Your task to perform on an android device: change alarm snooze length Image 0: 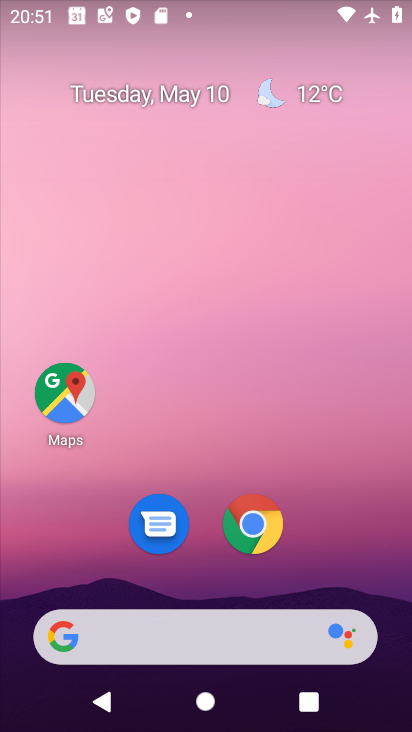
Step 0: drag from (330, 520) to (279, 29)
Your task to perform on an android device: change alarm snooze length Image 1: 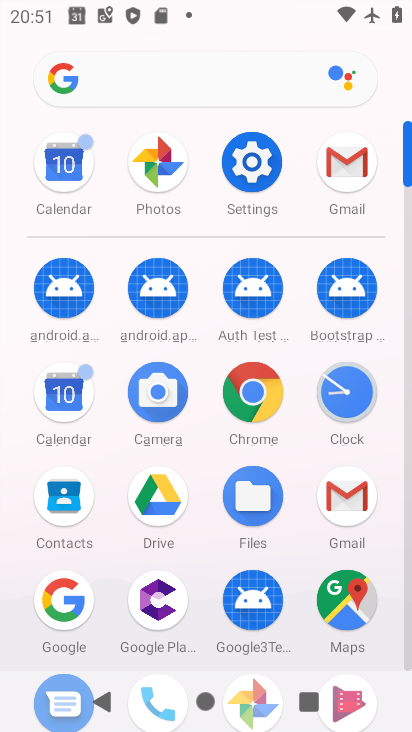
Step 1: click (349, 395)
Your task to perform on an android device: change alarm snooze length Image 2: 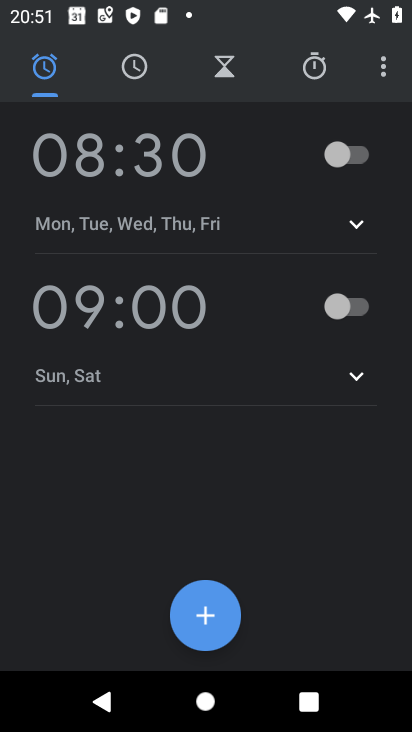
Step 2: click (383, 79)
Your task to perform on an android device: change alarm snooze length Image 3: 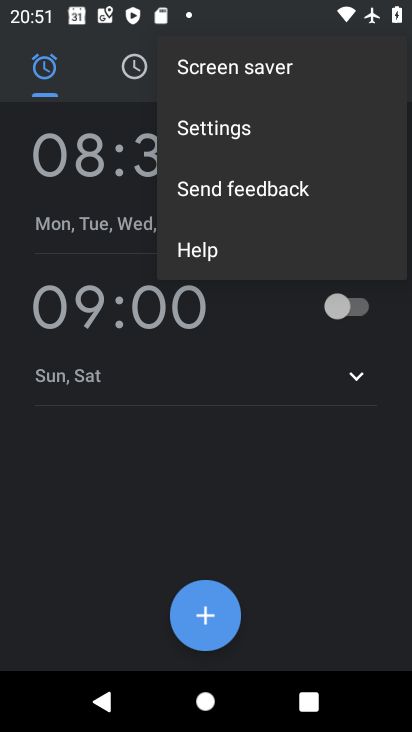
Step 3: click (284, 134)
Your task to perform on an android device: change alarm snooze length Image 4: 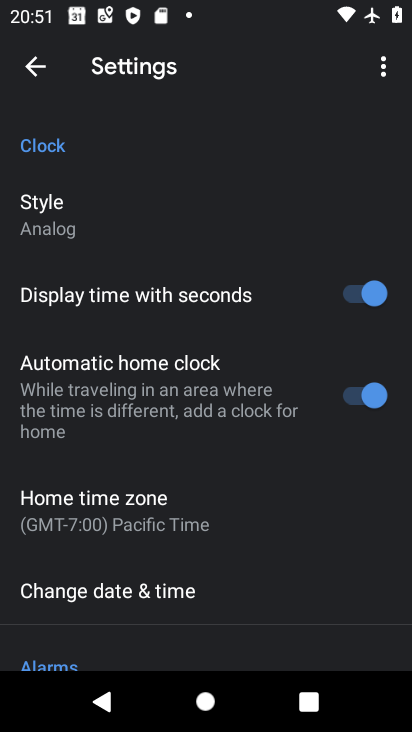
Step 4: drag from (193, 467) to (209, 133)
Your task to perform on an android device: change alarm snooze length Image 5: 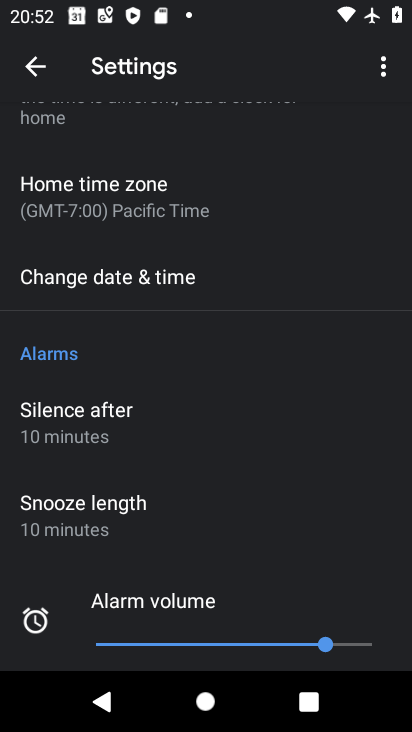
Step 5: click (133, 502)
Your task to perform on an android device: change alarm snooze length Image 6: 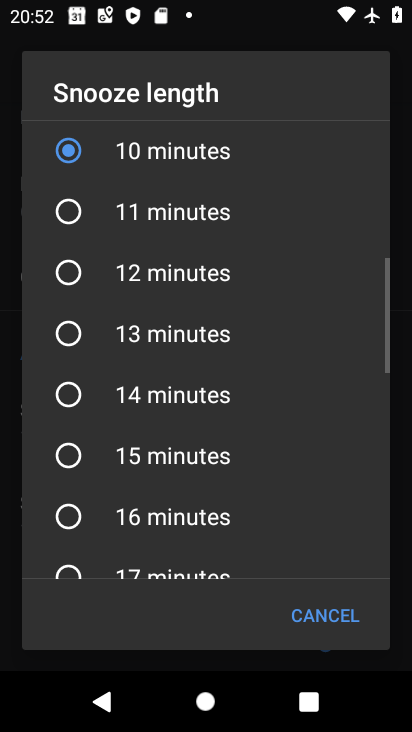
Step 6: click (190, 278)
Your task to perform on an android device: change alarm snooze length Image 7: 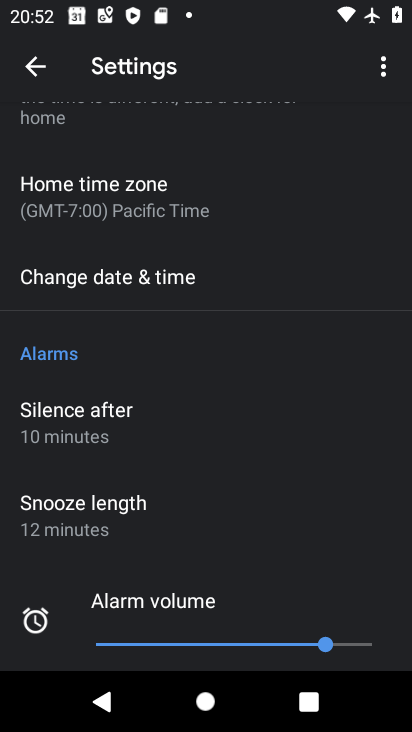
Step 7: task complete